Your task to perform on an android device: open sync settings in chrome Image 0: 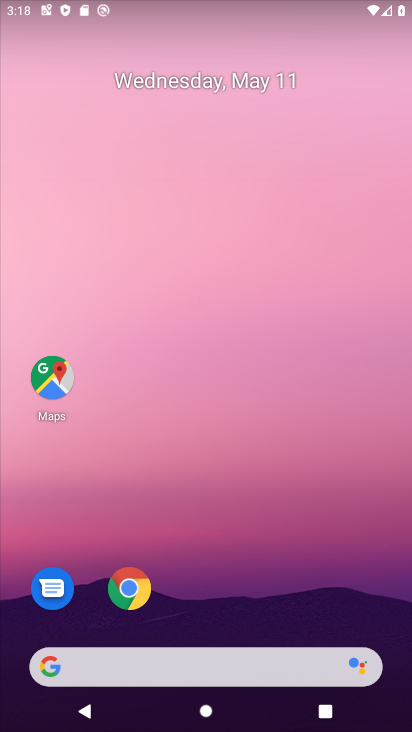
Step 0: click (124, 584)
Your task to perform on an android device: open sync settings in chrome Image 1: 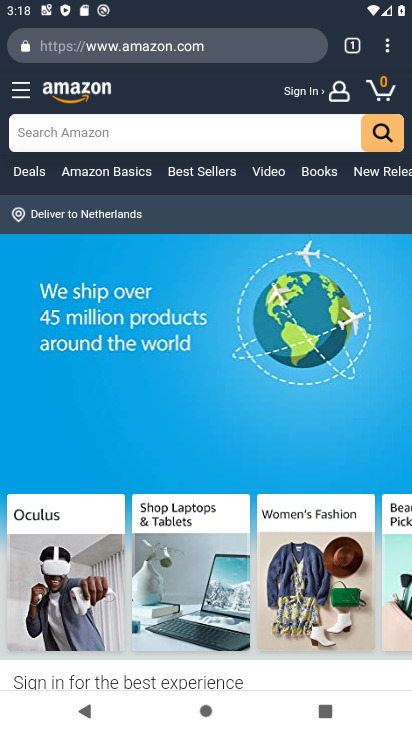
Step 1: click (392, 45)
Your task to perform on an android device: open sync settings in chrome Image 2: 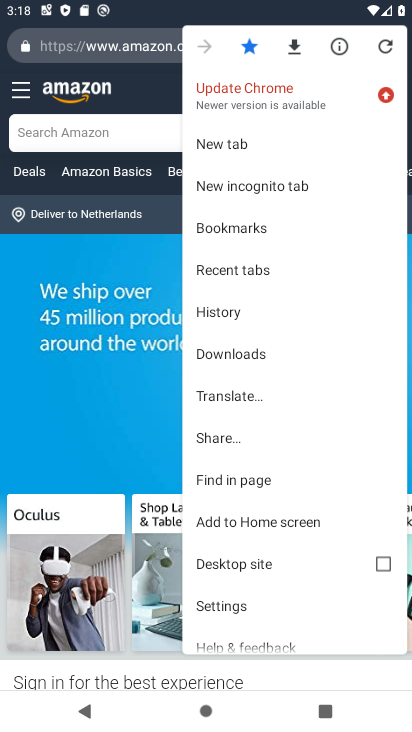
Step 2: click (208, 602)
Your task to perform on an android device: open sync settings in chrome Image 3: 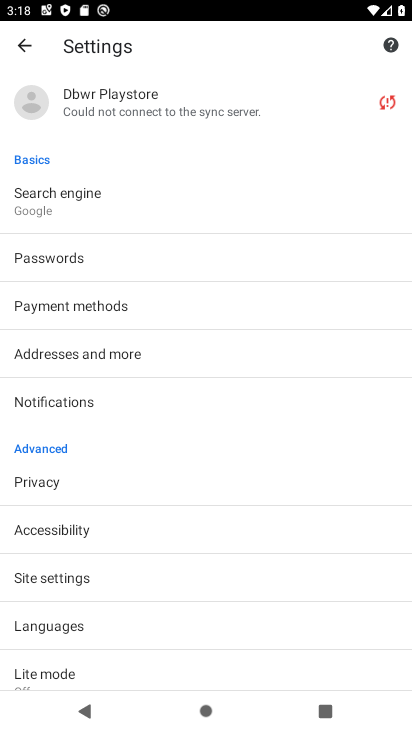
Step 3: click (139, 115)
Your task to perform on an android device: open sync settings in chrome Image 4: 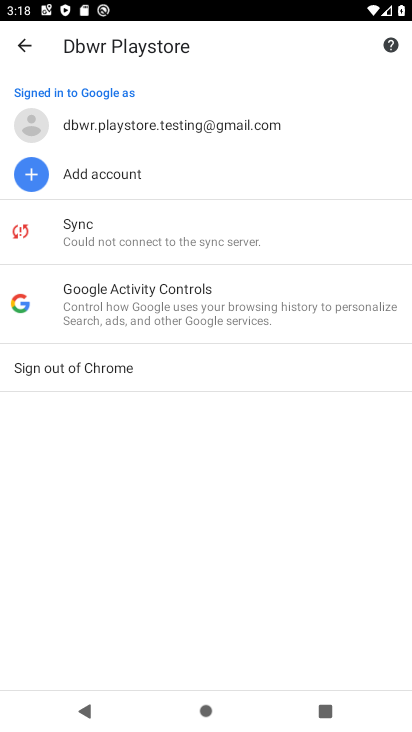
Step 4: click (141, 129)
Your task to perform on an android device: open sync settings in chrome Image 5: 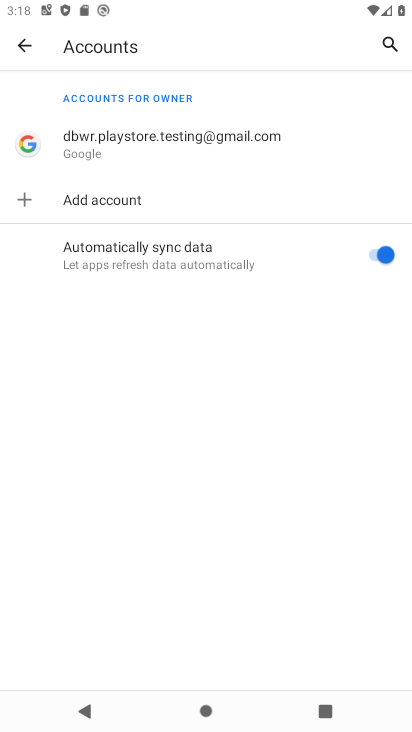
Step 5: click (19, 53)
Your task to perform on an android device: open sync settings in chrome Image 6: 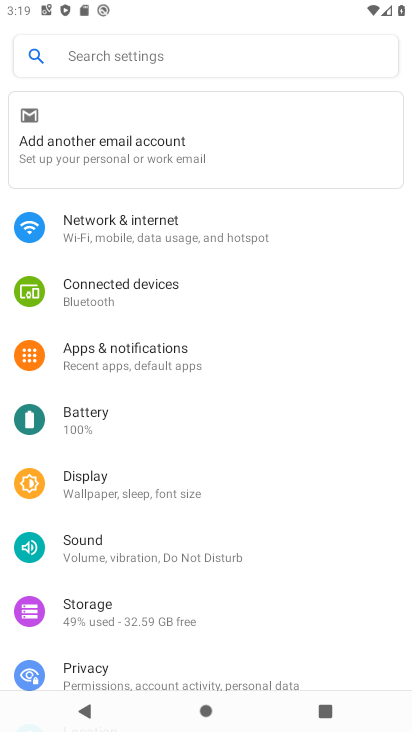
Step 6: press home button
Your task to perform on an android device: open sync settings in chrome Image 7: 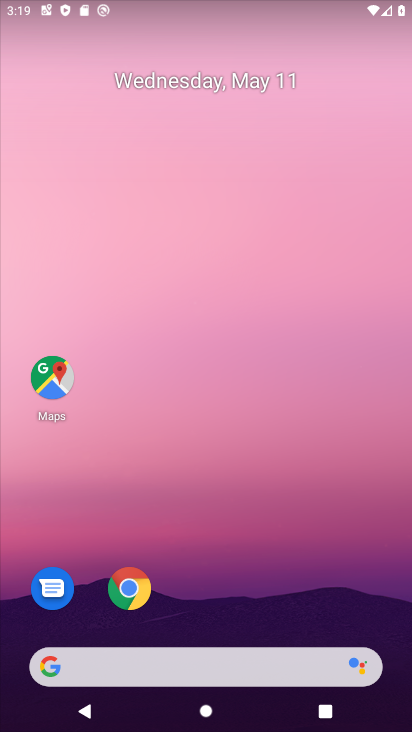
Step 7: drag from (231, 495) to (328, 4)
Your task to perform on an android device: open sync settings in chrome Image 8: 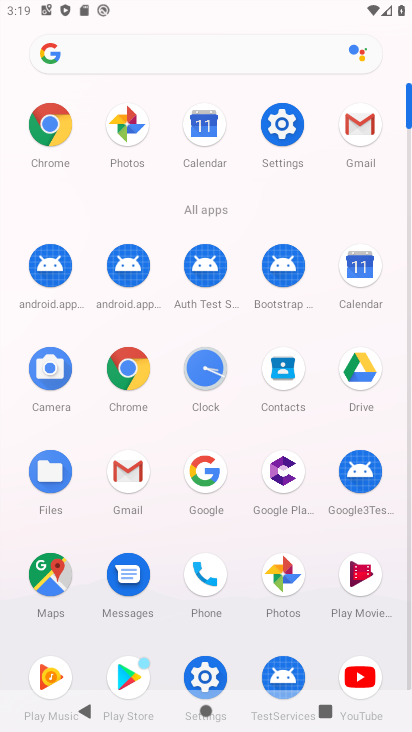
Step 8: click (141, 374)
Your task to perform on an android device: open sync settings in chrome Image 9: 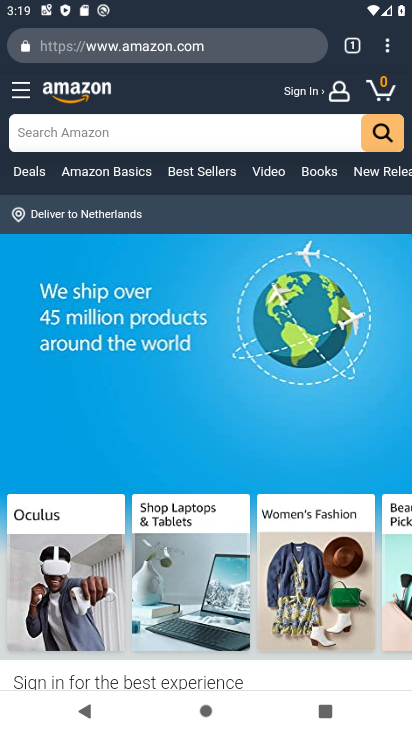
Step 9: click (391, 41)
Your task to perform on an android device: open sync settings in chrome Image 10: 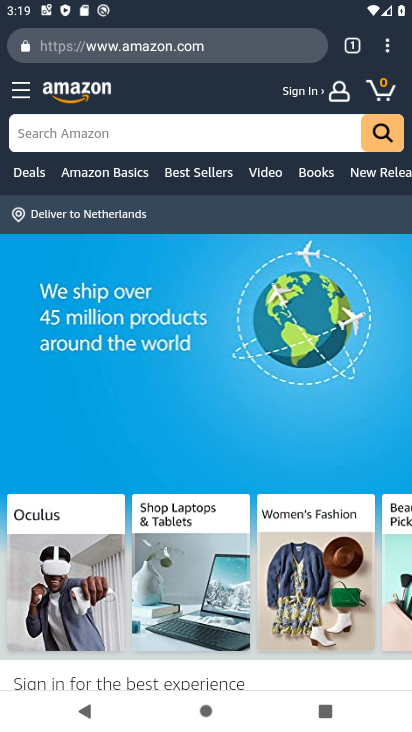
Step 10: click (391, 50)
Your task to perform on an android device: open sync settings in chrome Image 11: 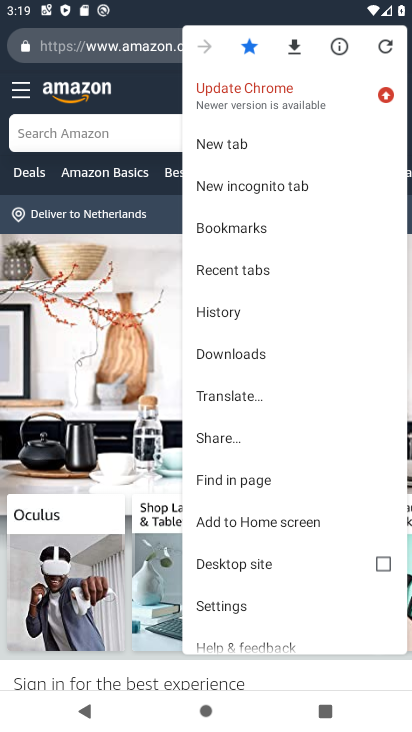
Step 11: drag from (234, 575) to (264, 437)
Your task to perform on an android device: open sync settings in chrome Image 12: 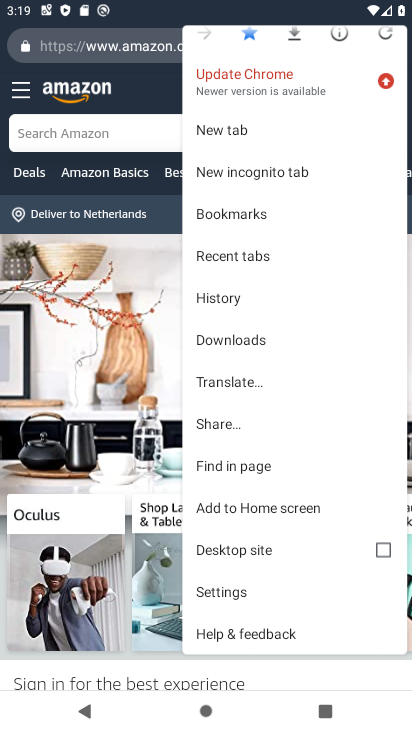
Step 12: click (208, 581)
Your task to perform on an android device: open sync settings in chrome Image 13: 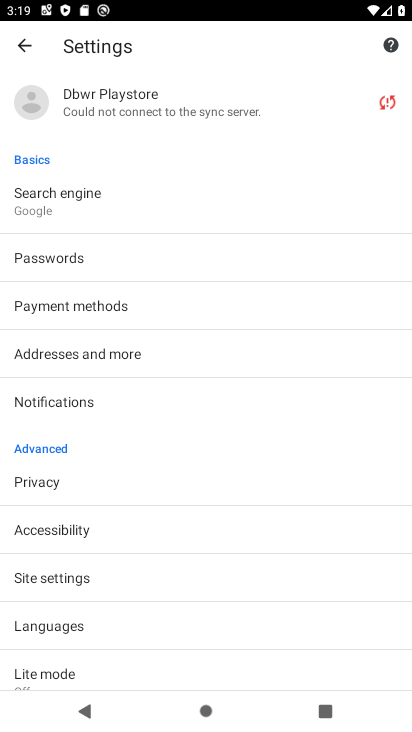
Step 13: click (154, 120)
Your task to perform on an android device: open sync settings in chrome Image 14: 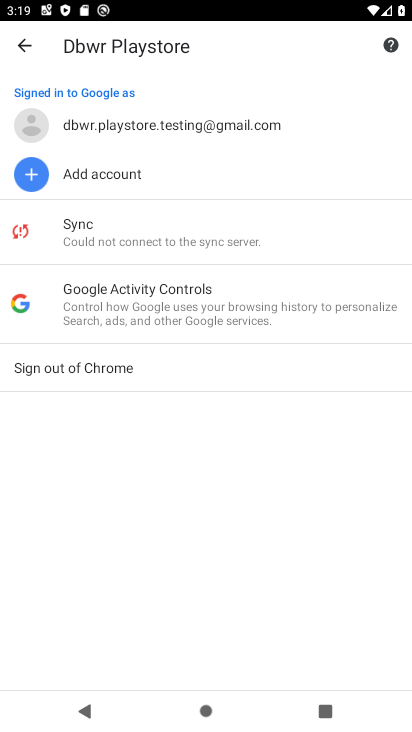
Step 14: click (120, 234)
Your task to perform on an android device: open sync settings in chrome Image 15: 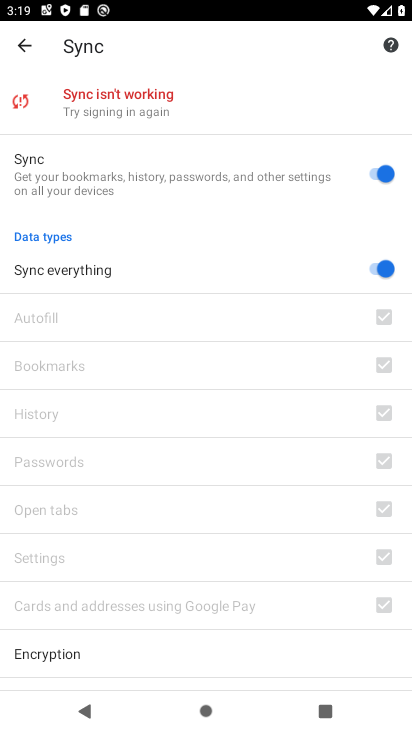
Step 15: task complete